Your task to perform on an android device: Open wifi settings Image 0: 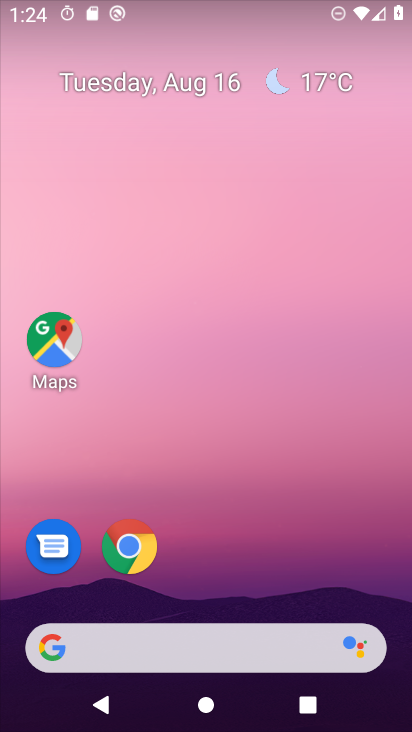
Step 0: drag from (224, 605) to (195, 143)
Your task to perform on an android device: Open wifi settings Image 1: 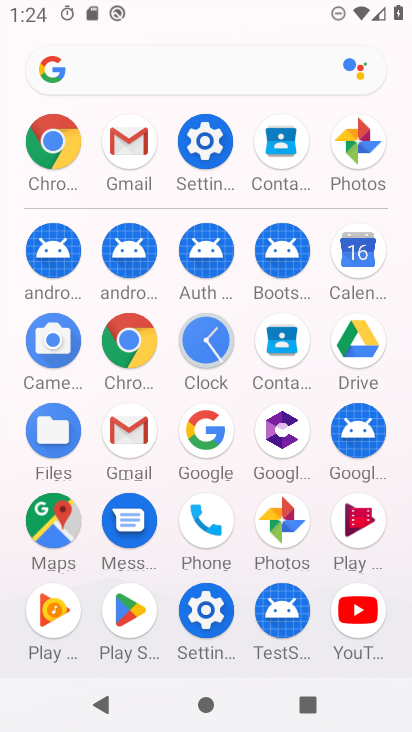
Step 1: click (216, 144)
Your task to perform on an android device: Open wifi settings Image 2: 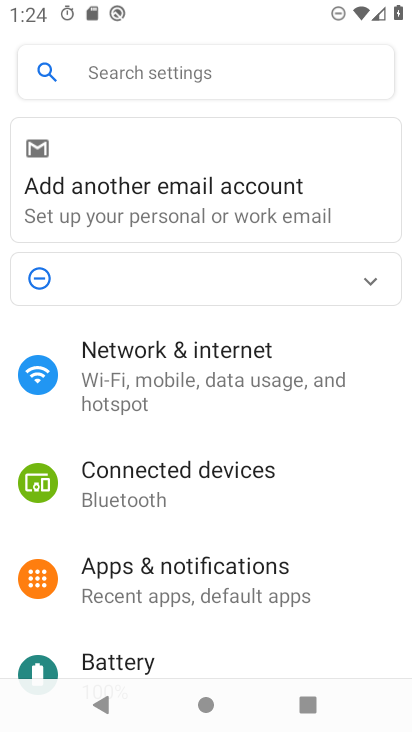
Step 2: click (166, 359)
Your task to perform on an android device: Open wifi settings Image 3: 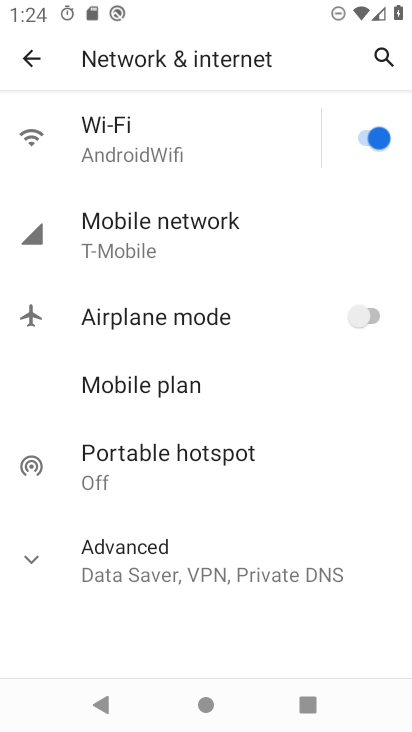
Step 3: click (103, 127)
Your task to perform on an android device: Open wifi settings Image 4: 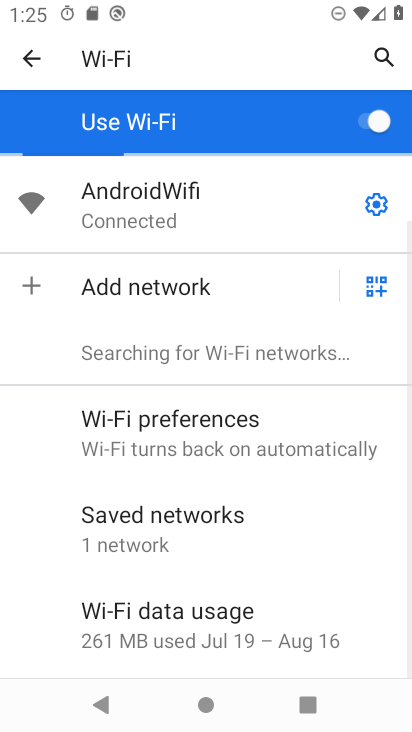
Step 4: task complete